Your task to perform on an android device: change the clock display to show seconds Image 0: 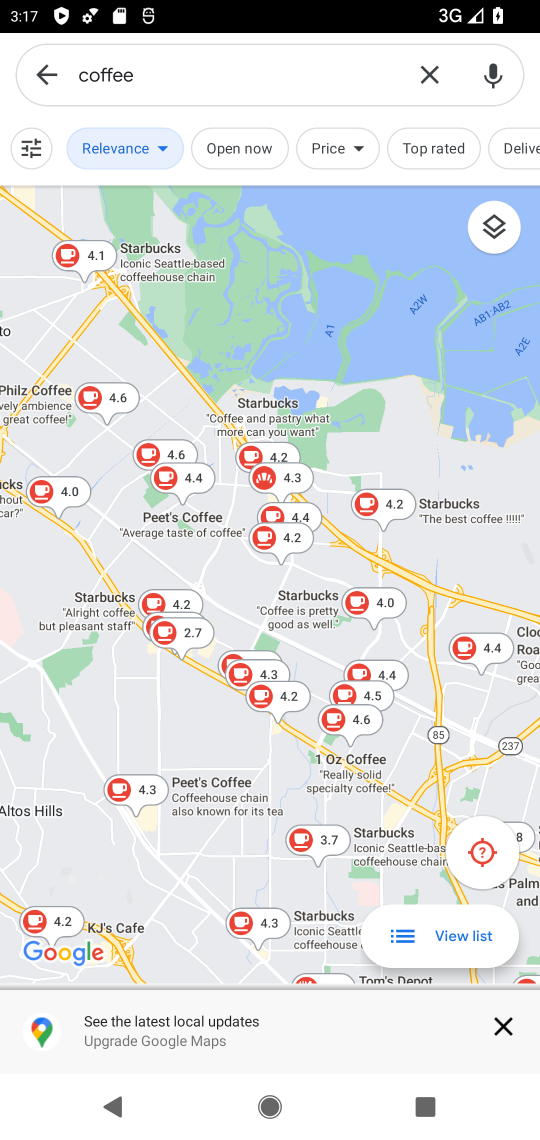
Step 0: press home button
Your task to perform on an android device: change the clock display to show seconds Image 1: 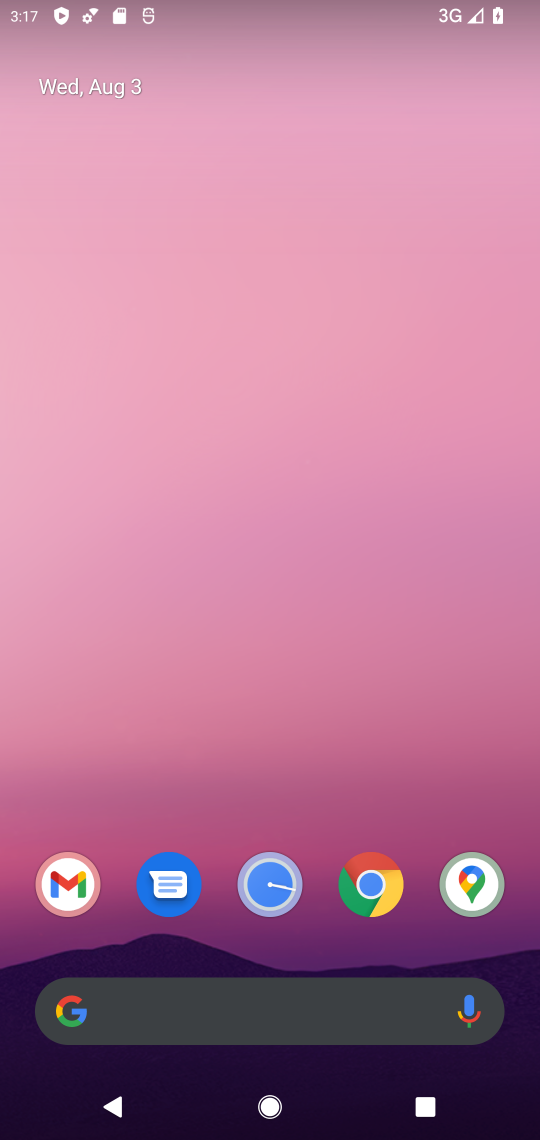
Step 1: click (272, 885)
Your task to perform on an android device: change the clock display to show seconds Image 2: 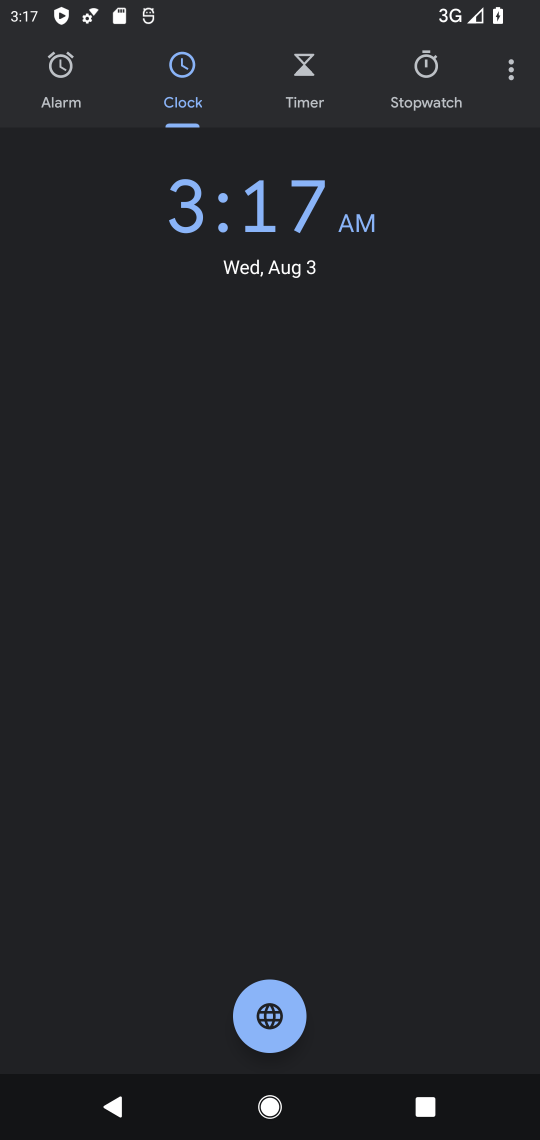
Step 2: click (495, 98)
Your task to perform on an android device: change the clock display to show seconds Image 3: 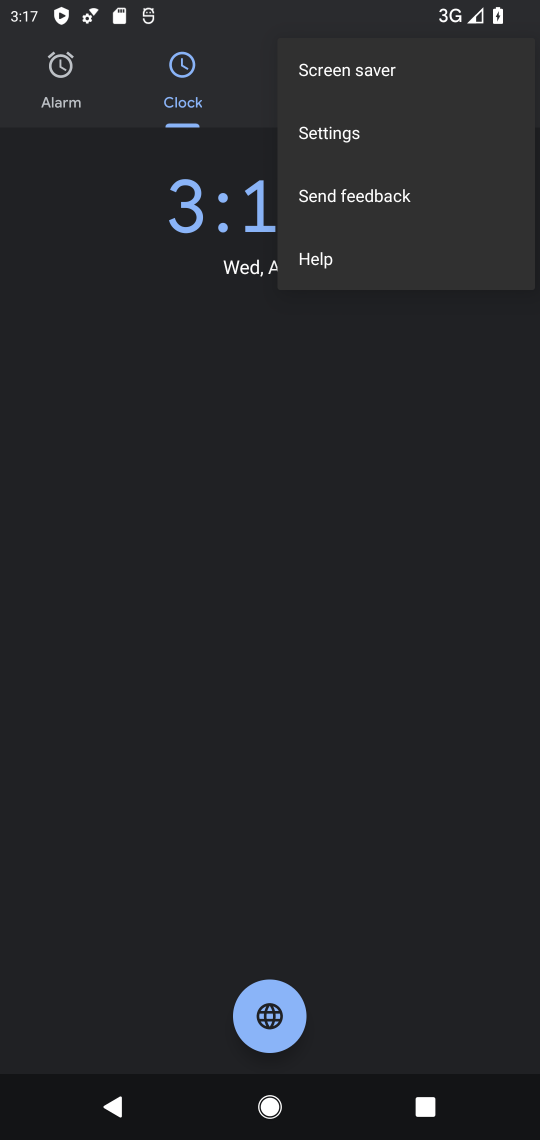
Step 3: click (394, 137)
Your task to perform on an android device: change the clock display to show seconds Image 4: 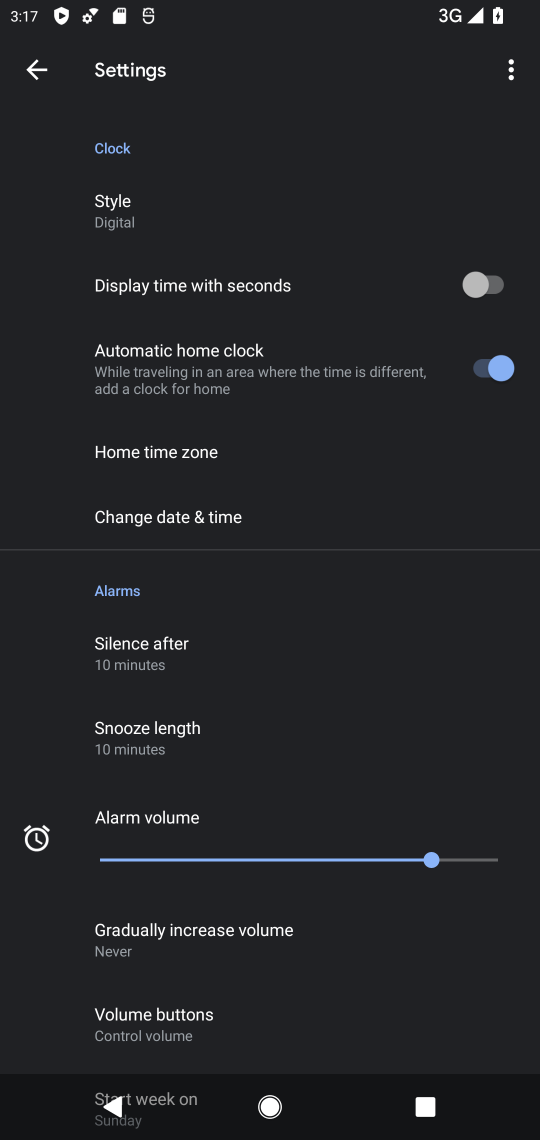
Step 4: click (207, 508)
Your task to perform on an android device: change the clock display to show seconds Image 5: 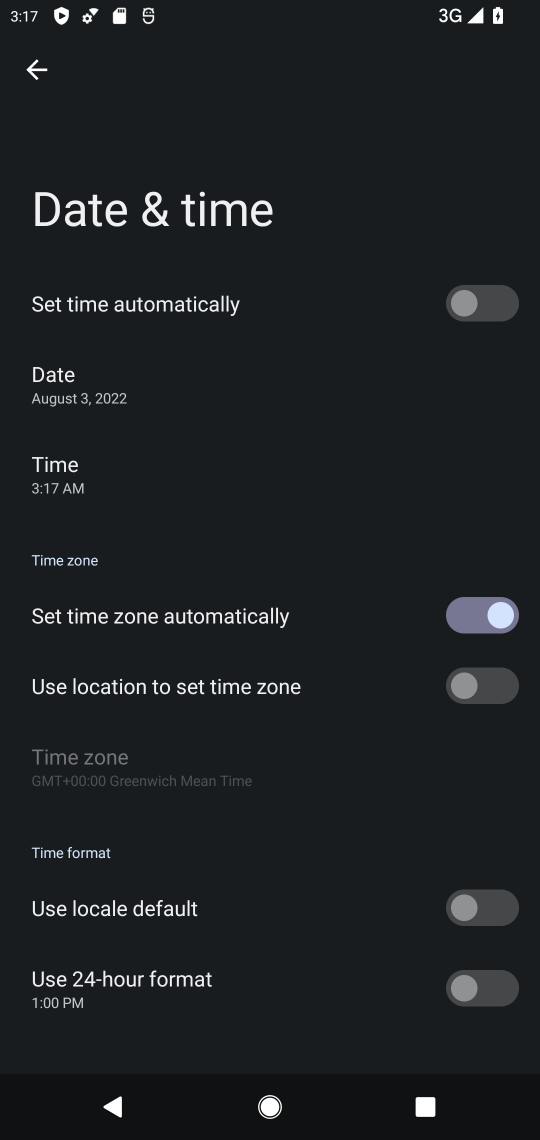
Step 5: task complete